Your task to perform on an android device: turn on wifi Image 0: 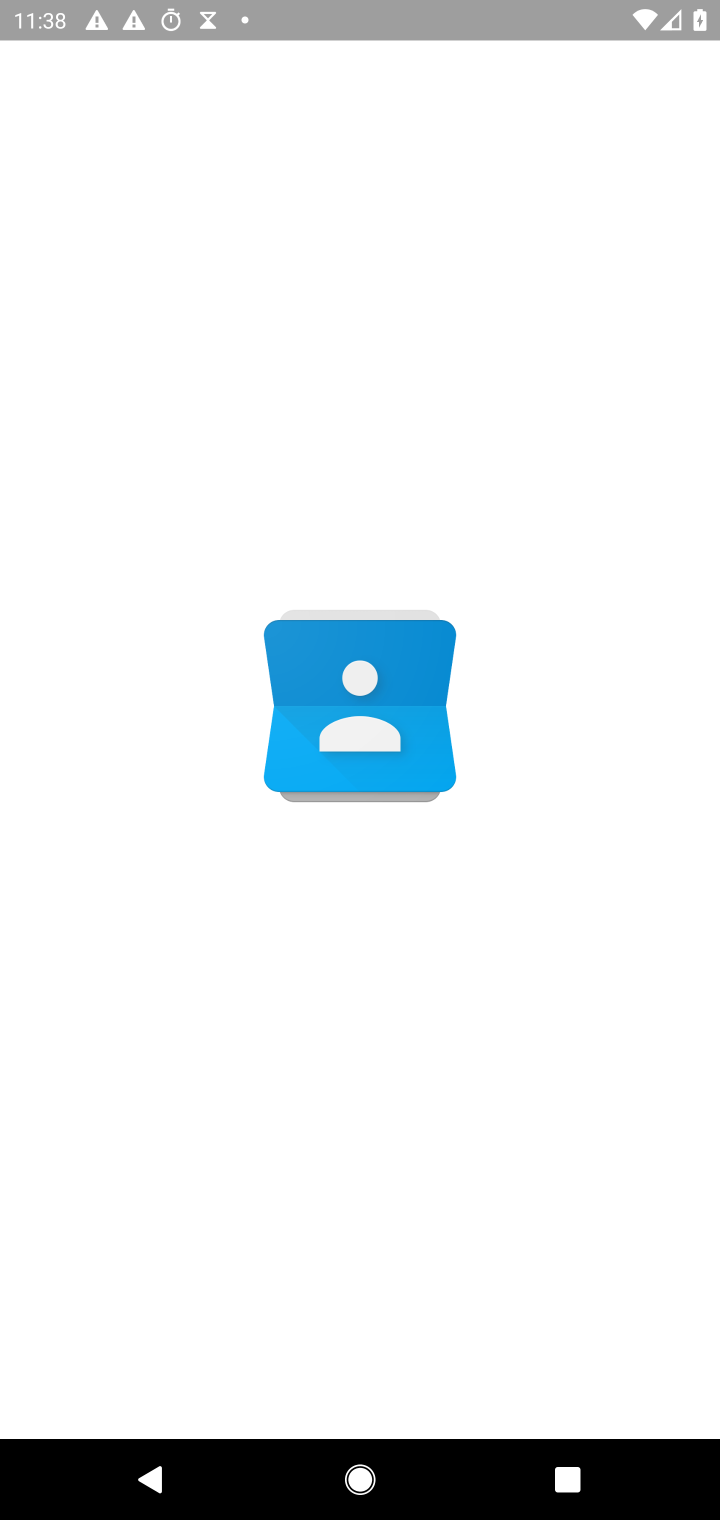
Step 0: press home button
Your task to perform on an android device: turn on wifi Image 1: 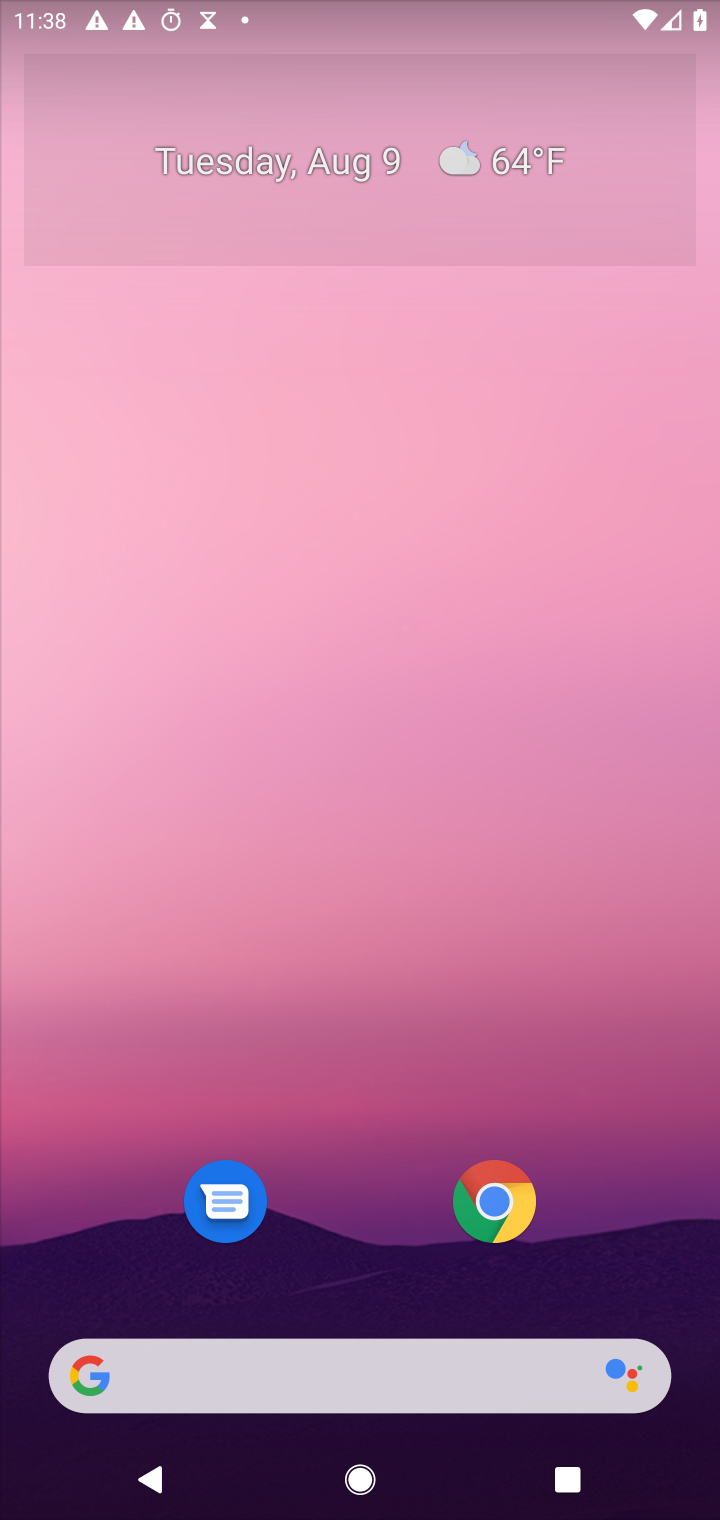
Step 1: drag from (403, 1198) to (400, 85)
Your task to perform on an android device: turn on wifi Image 2: 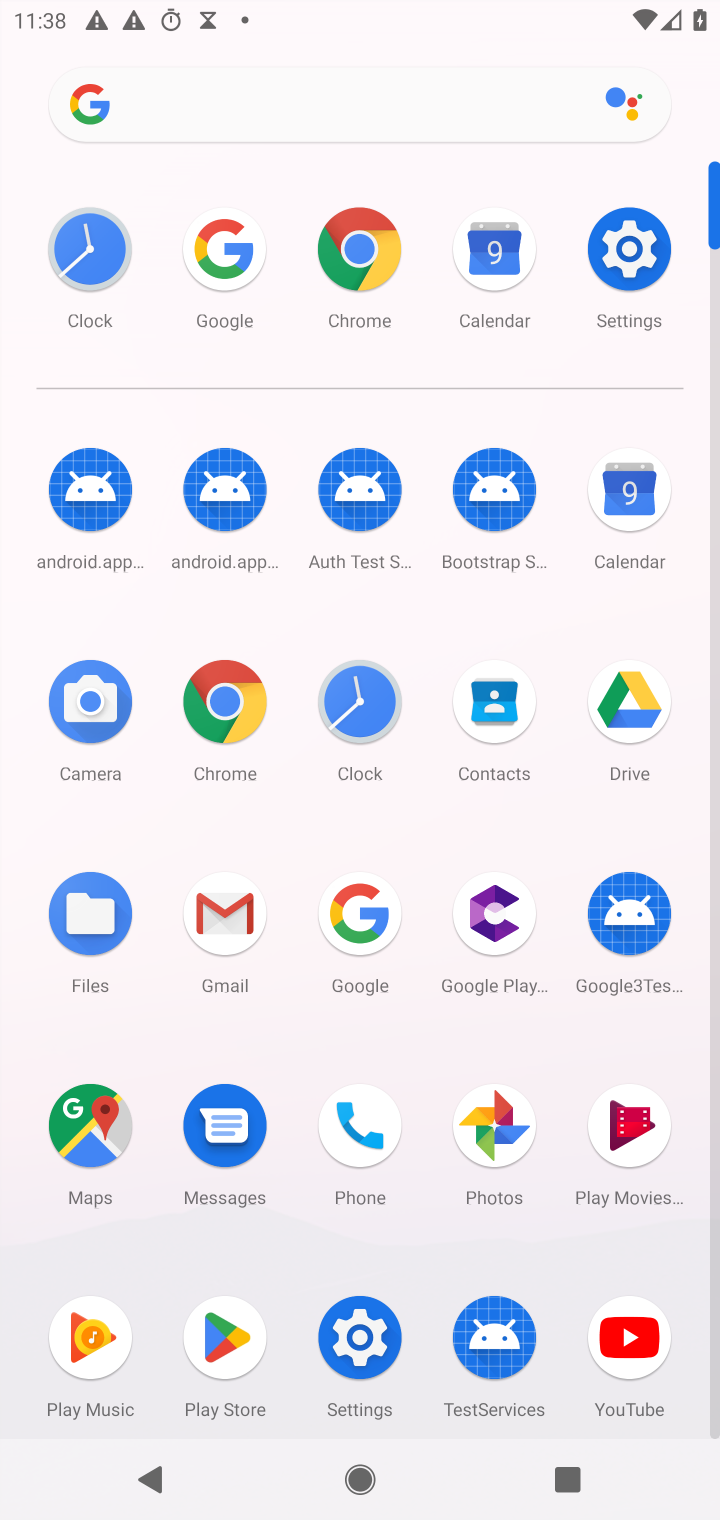
Step 2: click (602, 254)
Your task to perform on an android device: turn on wifi Image 3: 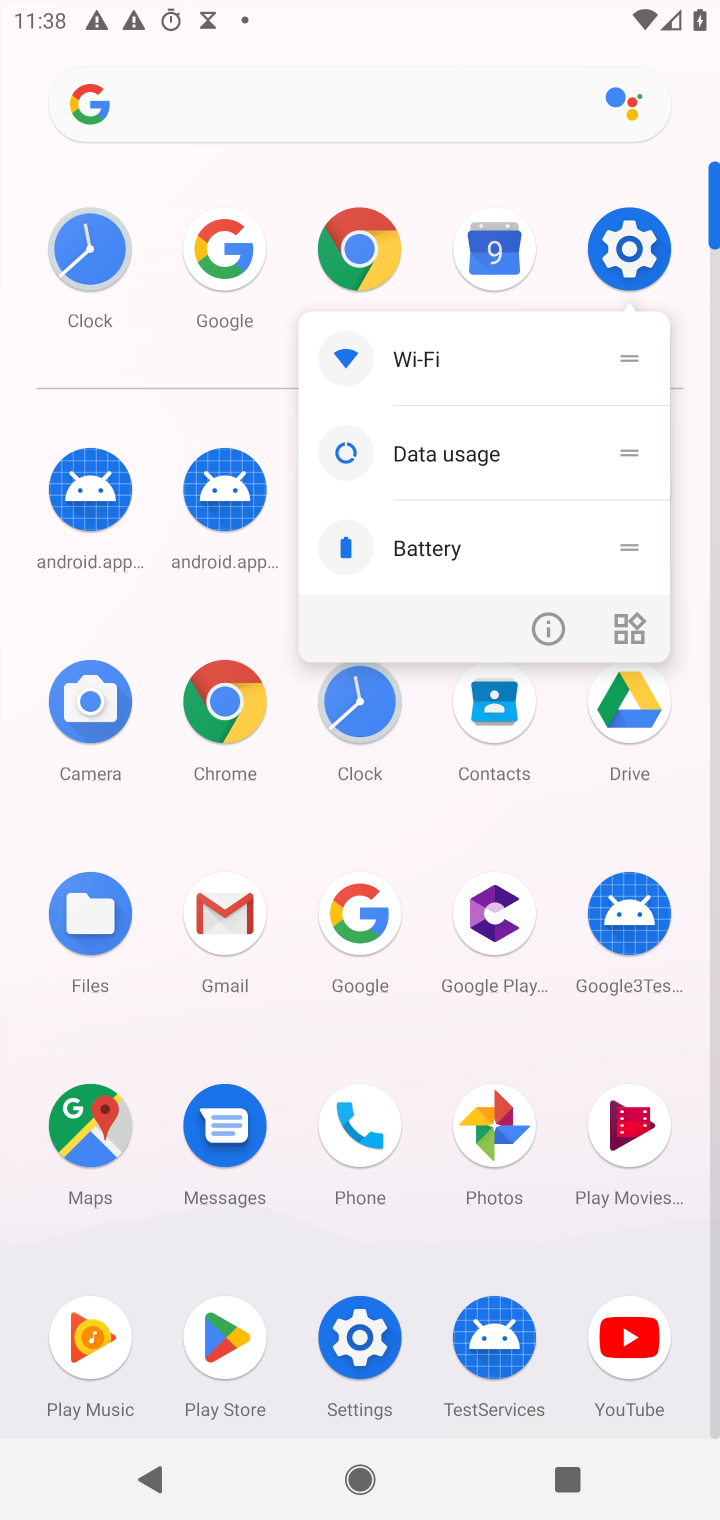
Step 3: click (620, 255)
Your task to perform on an android device: turn on wifi Image 4: 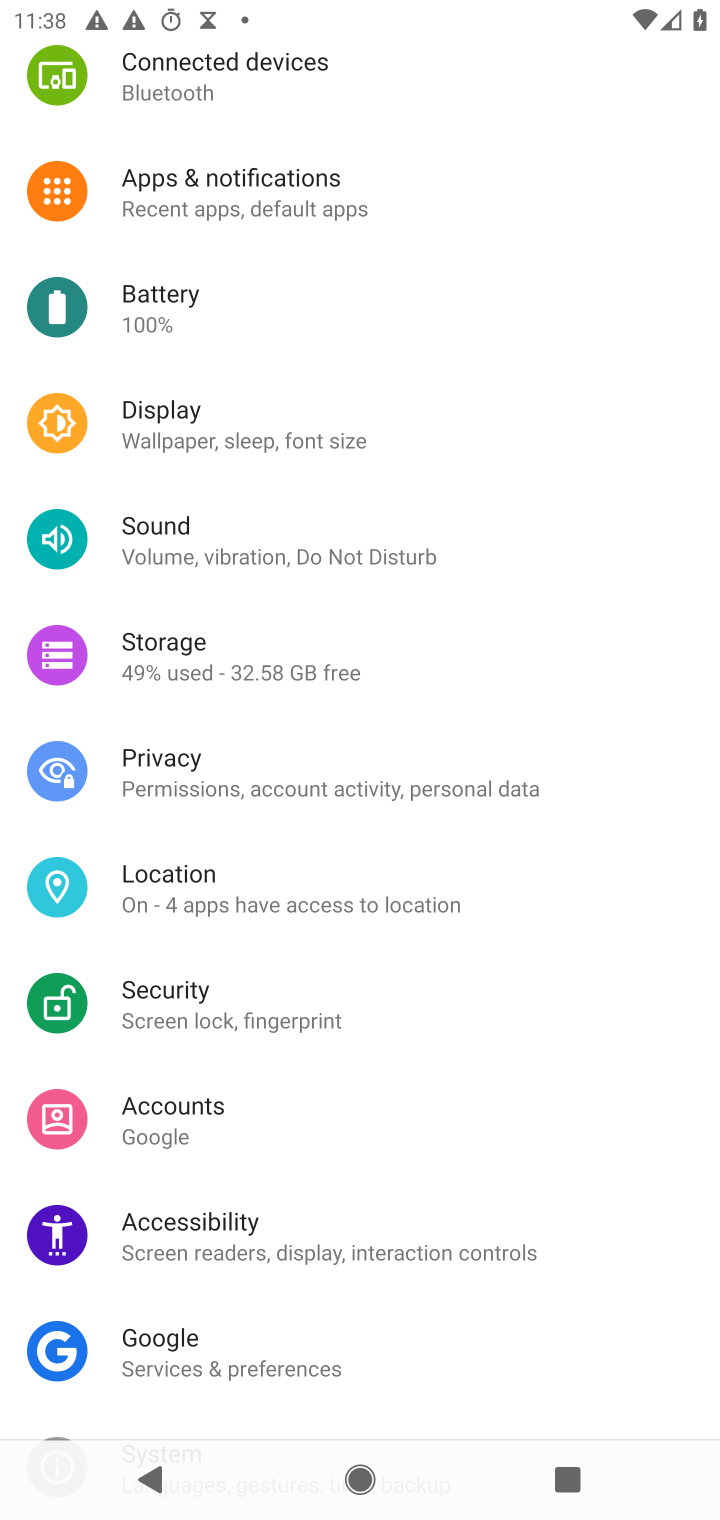
Step 4: drag from (230, 258) to (247, 1152)
Your task to perform on an android device: turn on wifi Image 5: 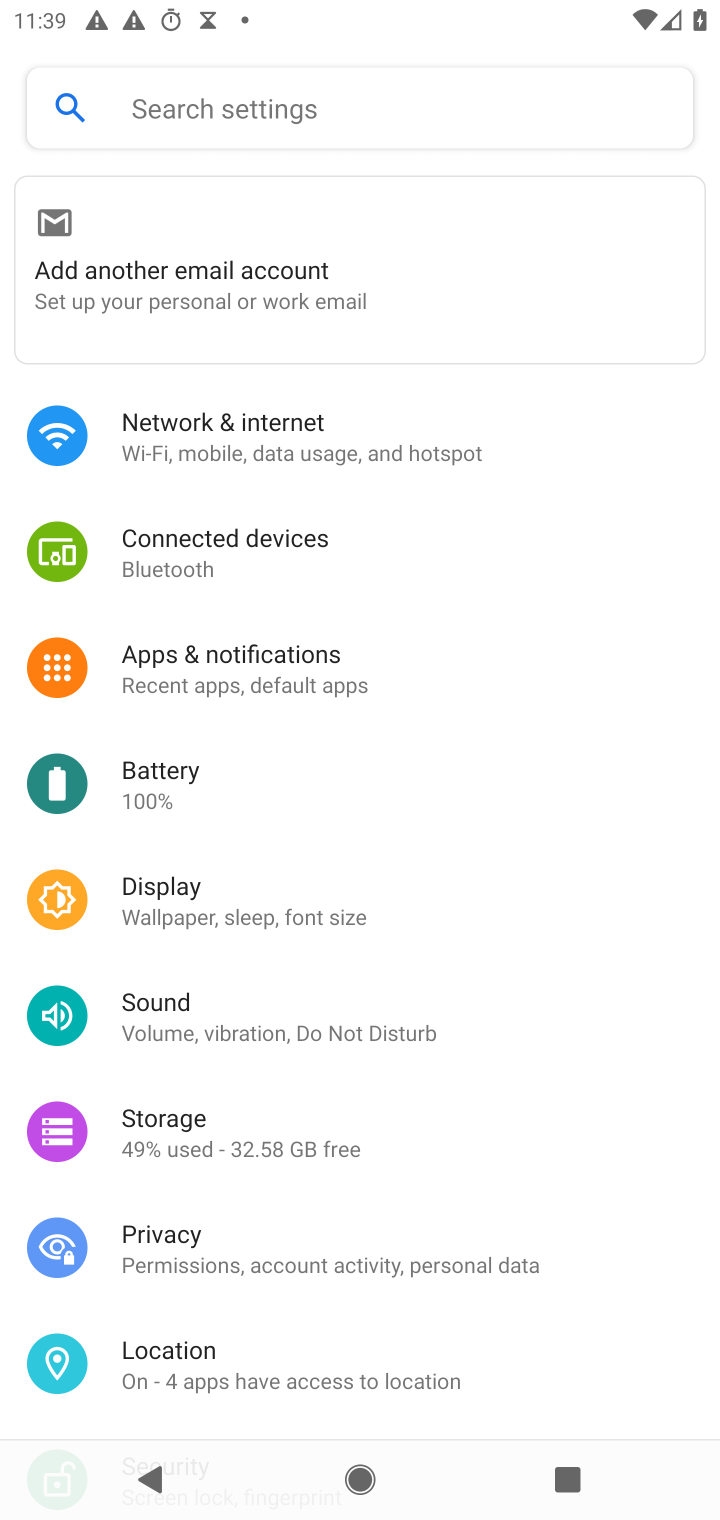
Step 5: click (227, 448)
Your task to perform on an android device: turn on wifi Image 6: 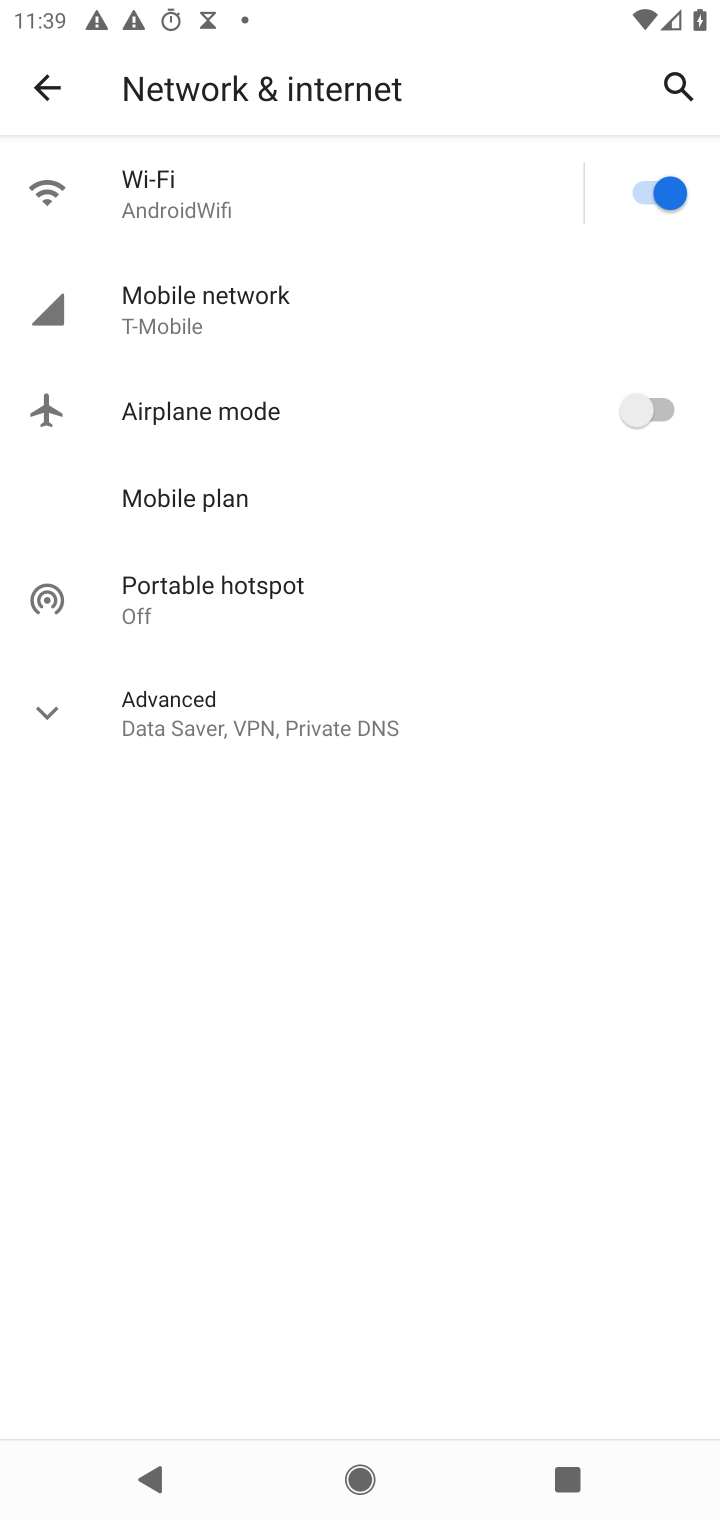
Step 6: click (217, 198)
Your task to perform on an android device: turn on wifi Image 7: 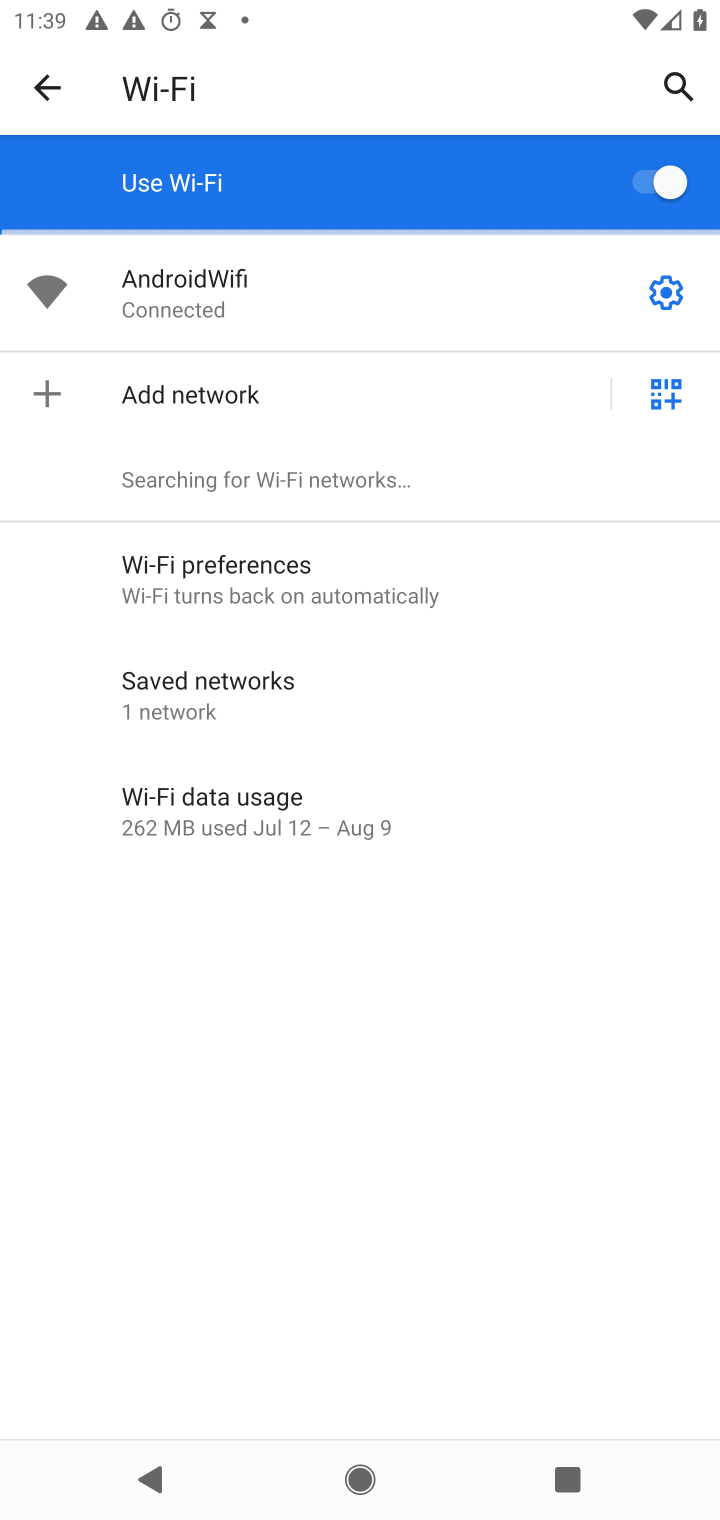
Step 7: task complete